Your task to perform on an android device: open app "Lyft - Rideshare, Bikes, Scooters & Transit" Image 0: 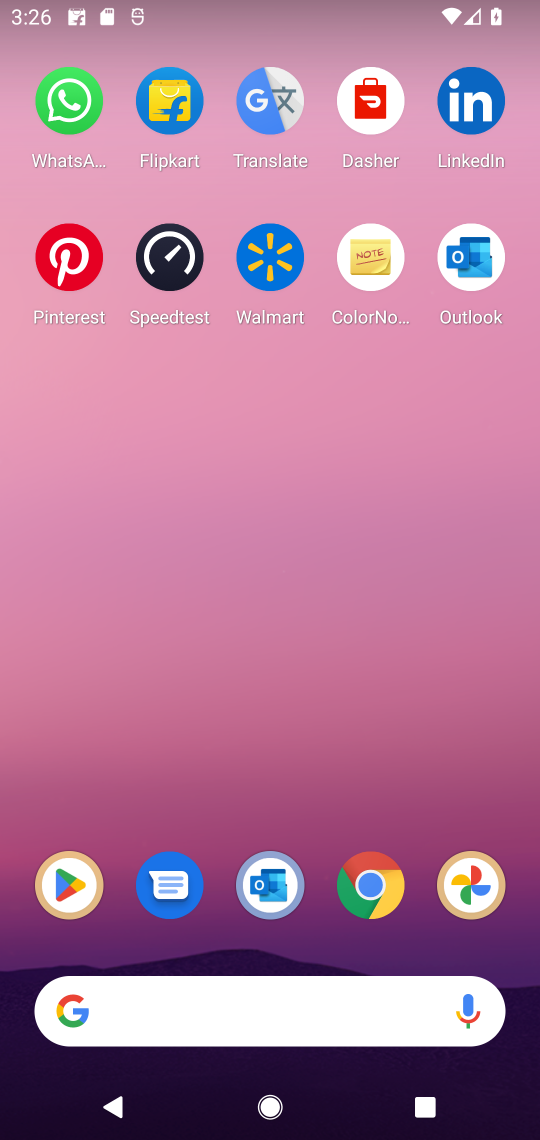
Step 0: click (68, 872)
Your task to perform on an android device: open app "Lyft - Rideshare, Bikes, Scooters & Transit" Image 1: 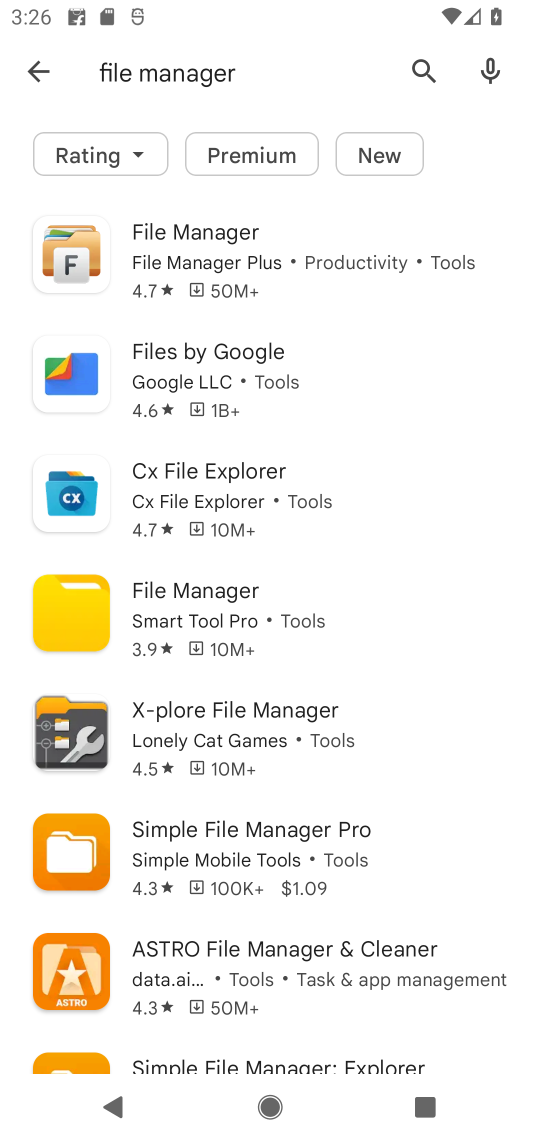
Step 1: click (417, 66)
Your task to perform on an android device: open app "Lyft - Rideshare, Bikes, Scooters & Transit" Image 2: 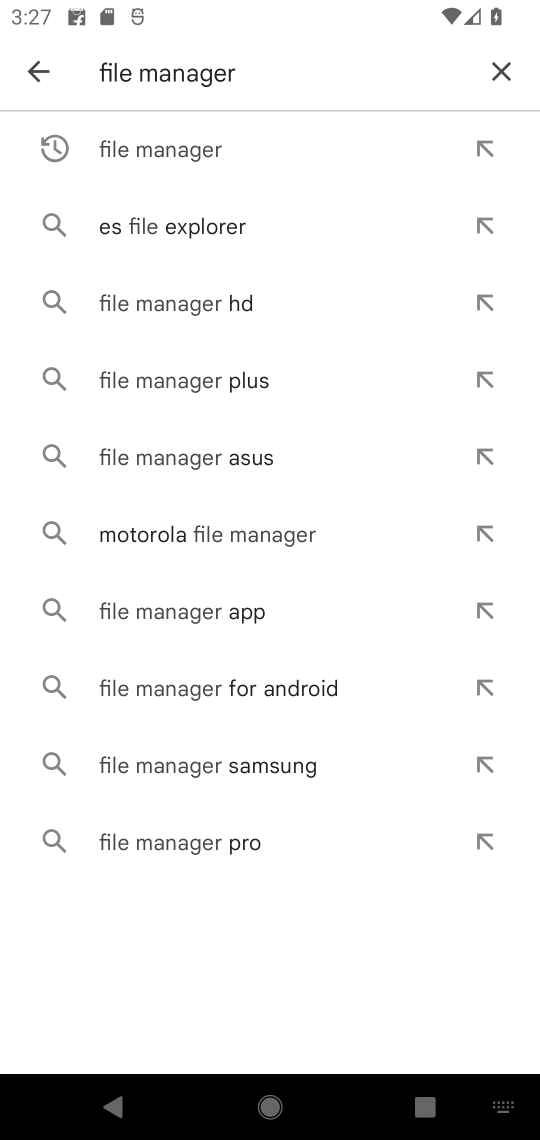
Step 2: click (497, 72)
Your task to perform on an android device: open app "Lyft - Rideshare, Bikes, Scooters & Transit" Image 3: 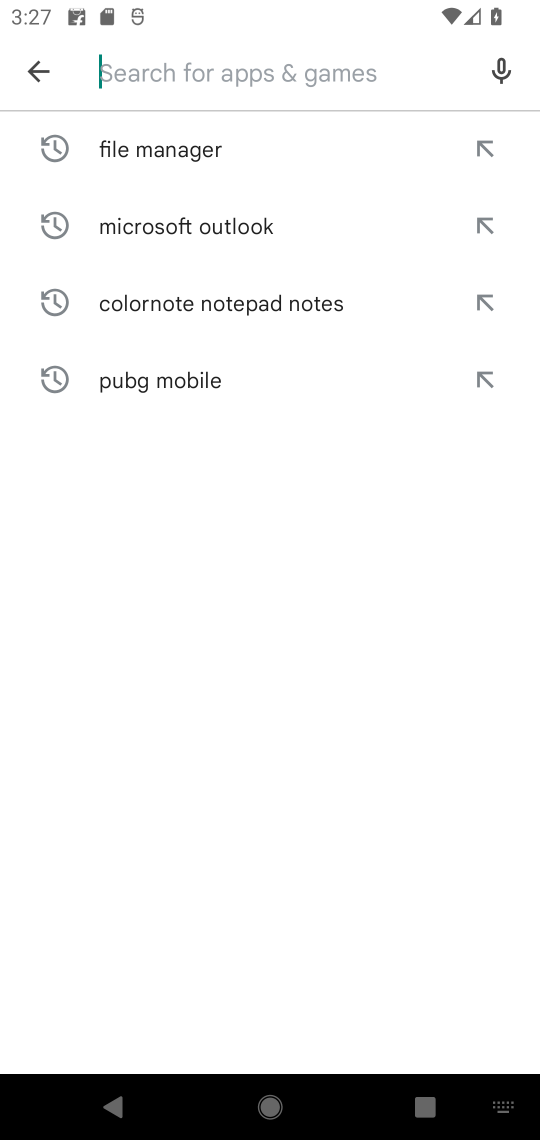
Step 3: type "Lyft - Rideshare, Bikes, Scooters & Transit"
Your task to perform on an android device: open app "Lyft - Rideshare, Bikes, Scooters & Transit" Image 4: 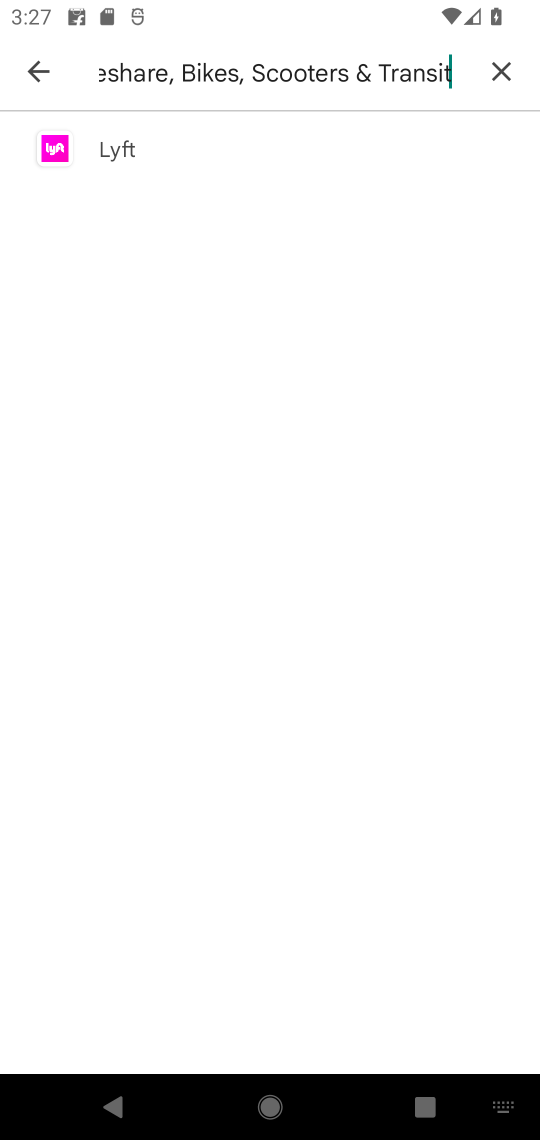
Step 4: click (104, 143)
Your task to perform on an android device: open app "Lyft - Rideshare, Bikes, Scooters & Transit" Image 5: 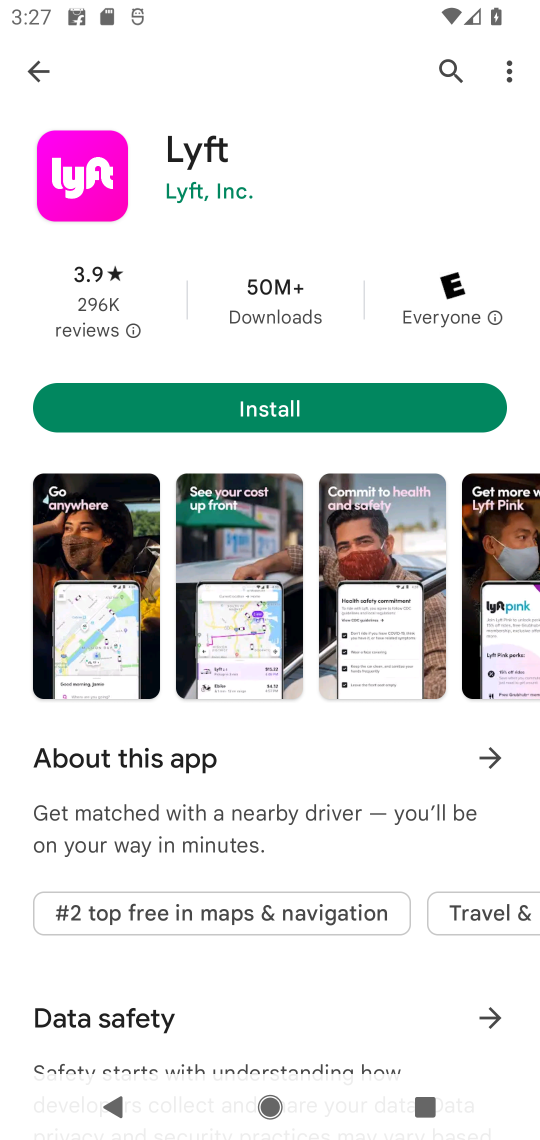
Step 5: click (355, 155)
Your task to perform on an android device: open app "Lyft - Rideshare, Bikes, Scooters & Transit" Image 6: 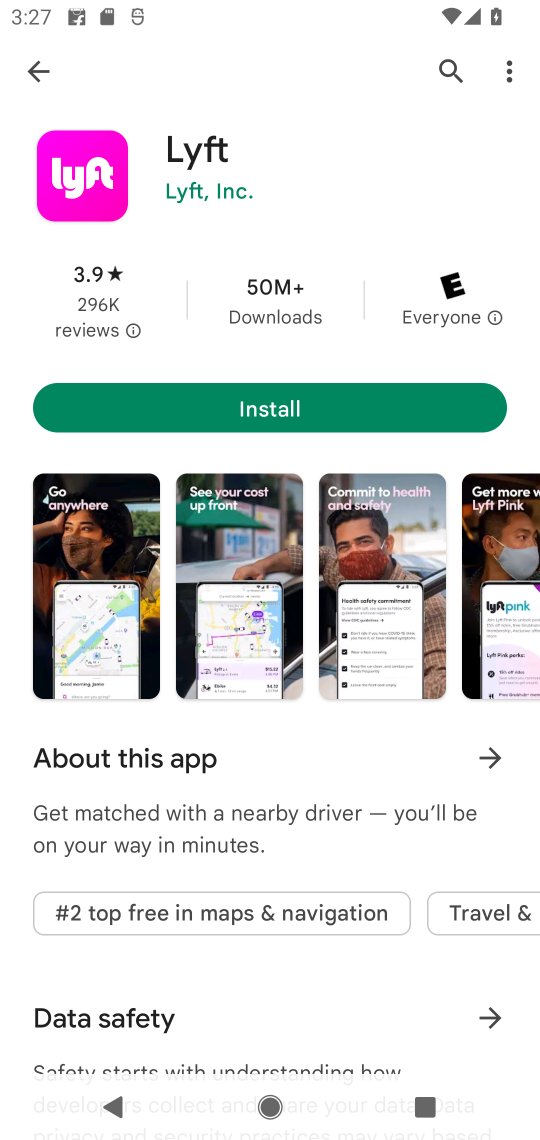
Step 6: click (195, 397)
Your task to perform on an android device: open app "Lyft - Rideshare, Bikes, Scooters & Transit" Image 7: 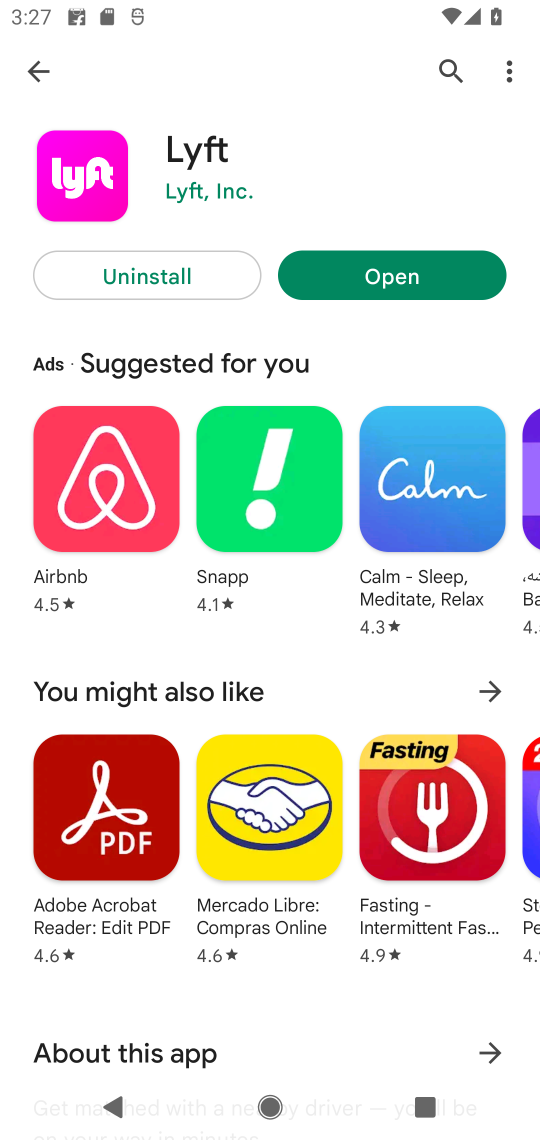
Step 7: click (388, 280)
Your task to perform on an android device: open app "Lyft - Rideshare, Bikes, Scooters & Transit" Image 8: 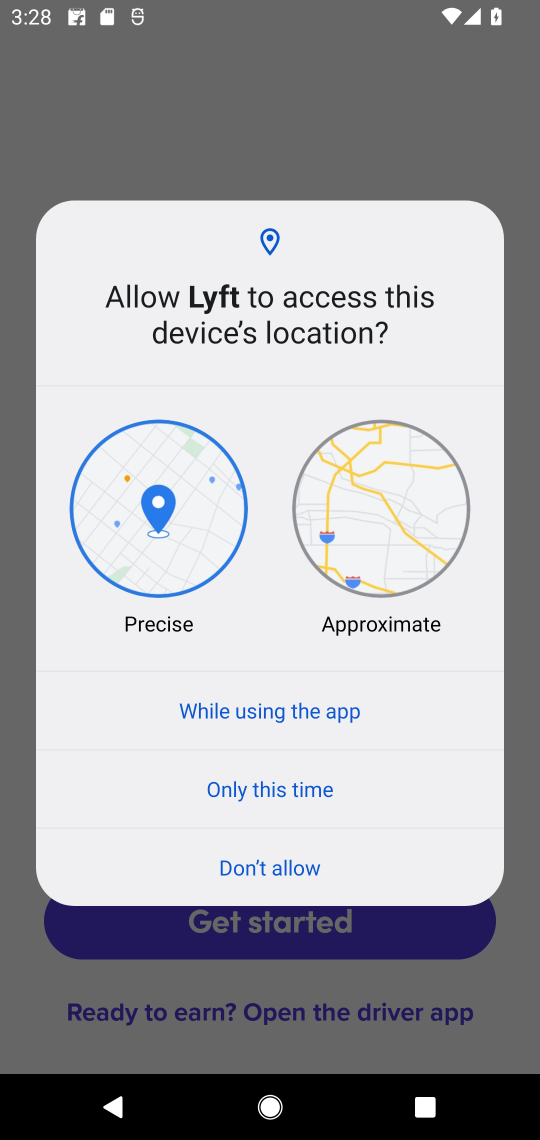
Step 8: task complete